Your task to perform on an android device: Open the stopwatch Image 0: 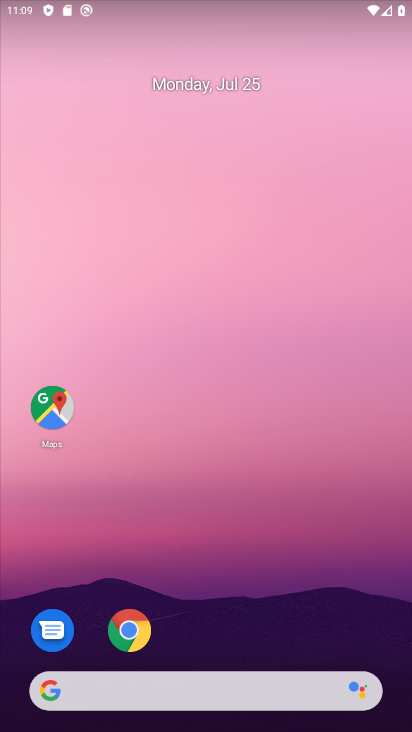
Step 0: drag from (288, 647) to (292, 24)
Your task to perform on an android device: Open the stopwatch Image 1: 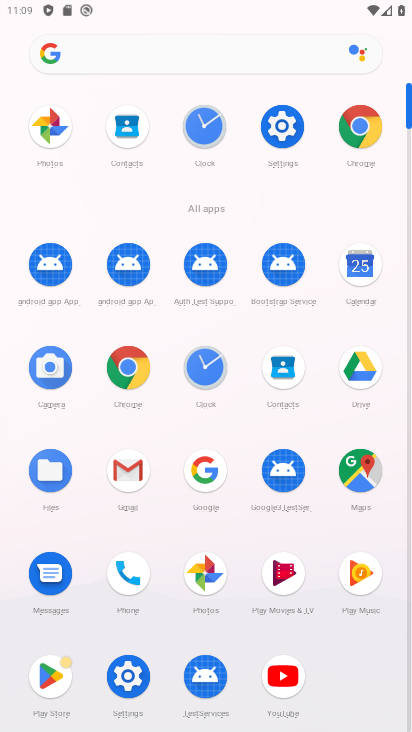
Step 1: click (203, 374)
Your task to perform on an android device: Open the stopwatch Image 2: 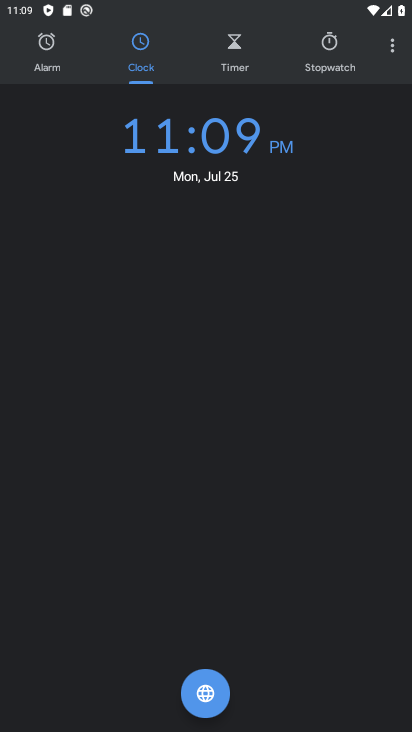
Step 2: click (338, 48)
Your task to perform on an android device: Open the stopwatch Image 3: 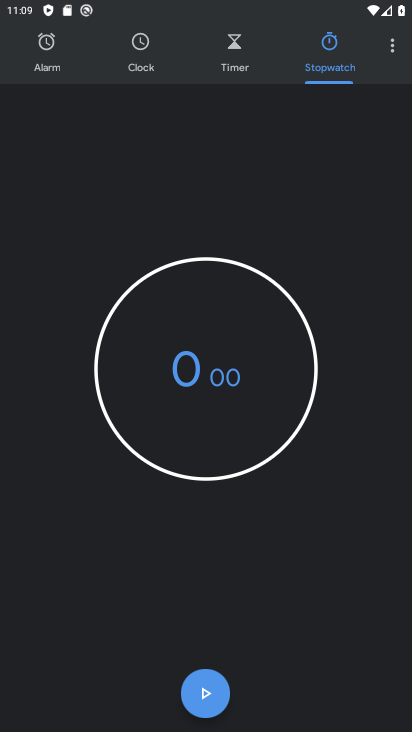
Step 3: task complete